Your task to perform on an android device: Open settings on Google Maps Image 0: 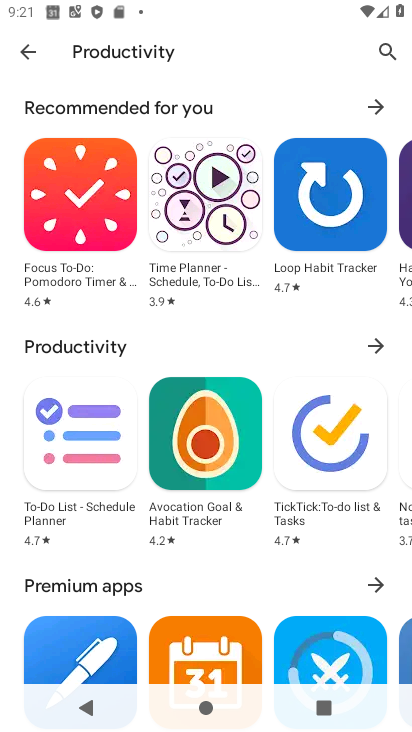
Step 0: press home button
Your task to perform on an android device: Open settings on Google Maps Image 1: 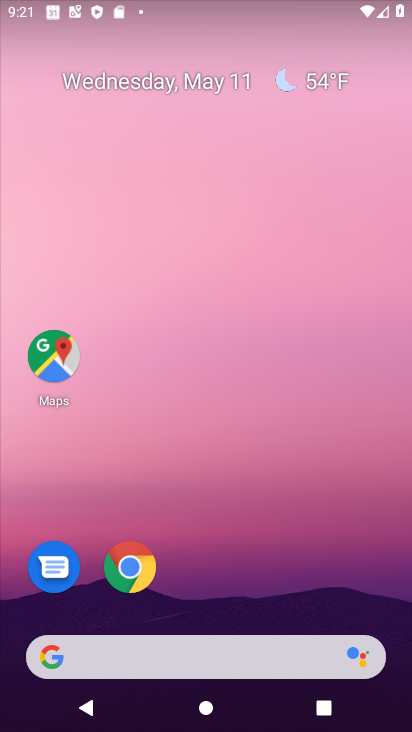
Step 1: click (53, 378)
Your task to perform on an android device: Open settings on Google Maps Image 2: 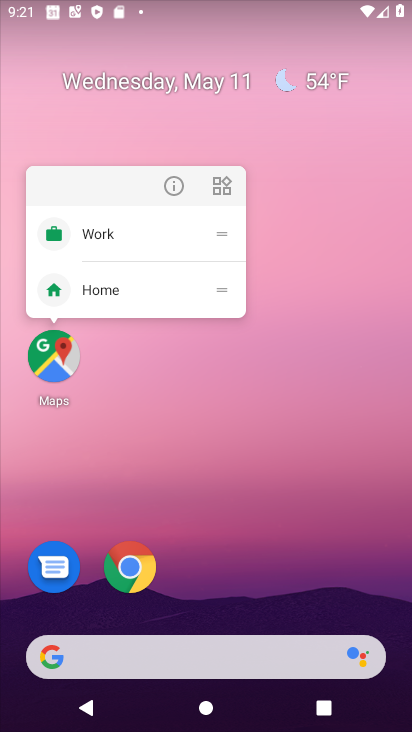
Step 2: click (53, 378)
Your task to perform on an android device: Open settings on Google Maps Image 3: 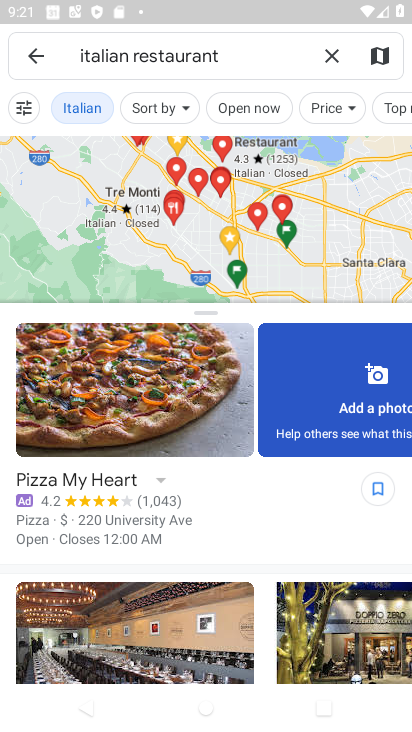
Step 3: click (49, 57)
Your task to perform on an android device: Open settings on Google Maps Image 4: 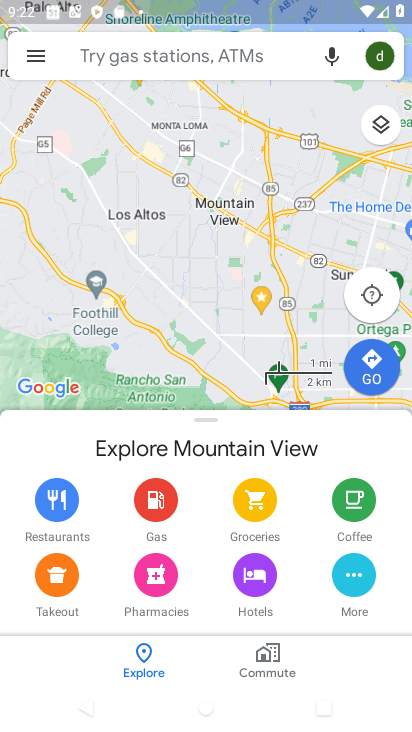
Step 4: click (40, 58)
Your task to perform on an android device: Open settings on Google Maps Image 5: 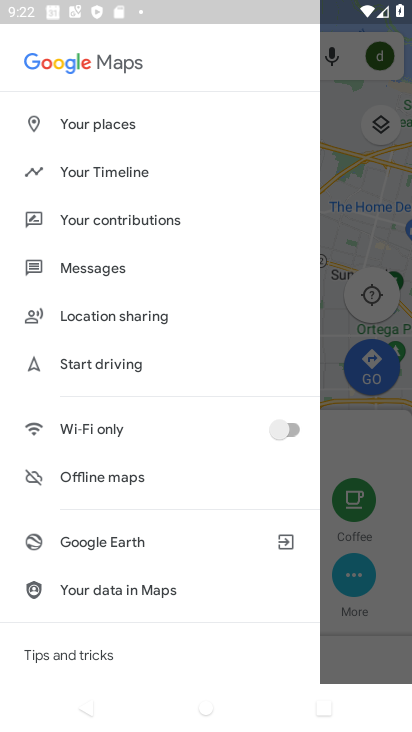
Step 5: drag from (116, 548) to (212, 137)
Your task to perform on an android device: Open settings on Google Maps Image 6: 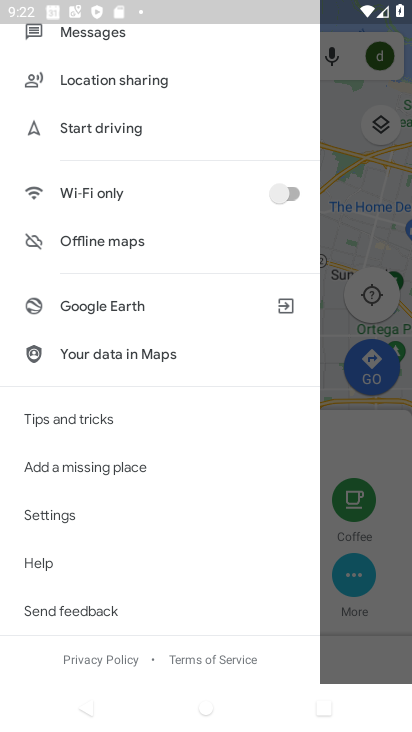
Step 6: click (74, 512)
Your task to perform on an android device: Open settings on Google Maps Image 7: 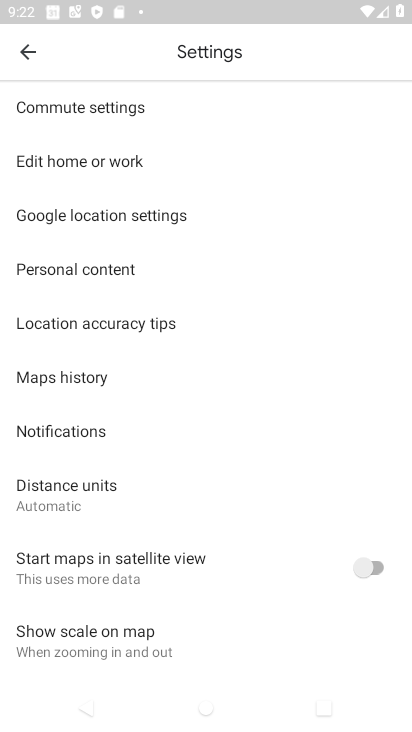
Step 7: task complete